Your task to perform on an android device: Go to Yahoo.com Image 0: 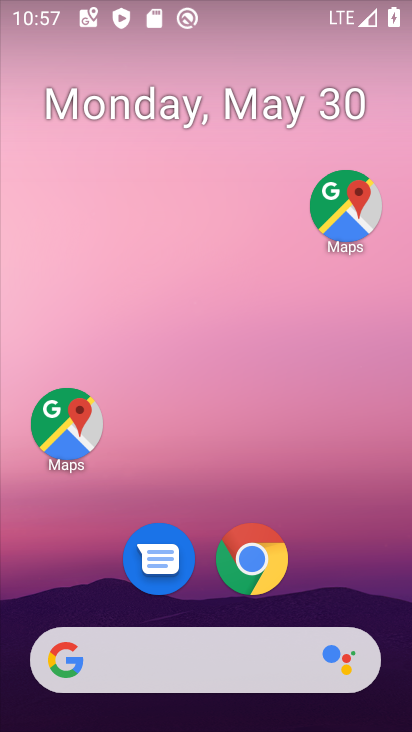
Step 0: click (254, 552)
Your task to perform on an android device: Go to Yahoo.com Image 1: 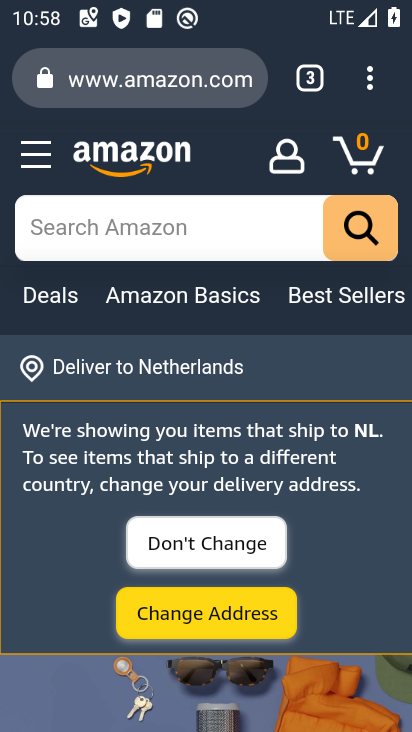
Step 1: click (189, 94)
Your task to perform on an android device: Go to Yahoo.com Image 2: 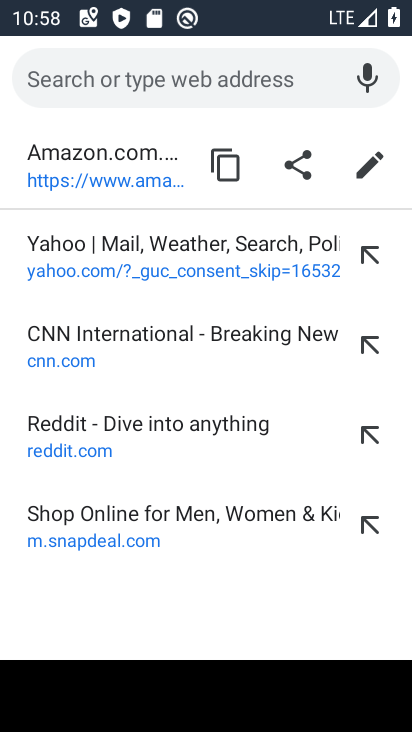
Step 2: type "yahoo.com"
Your task to perform on an android device: Go to Yahoo.com Image 3: 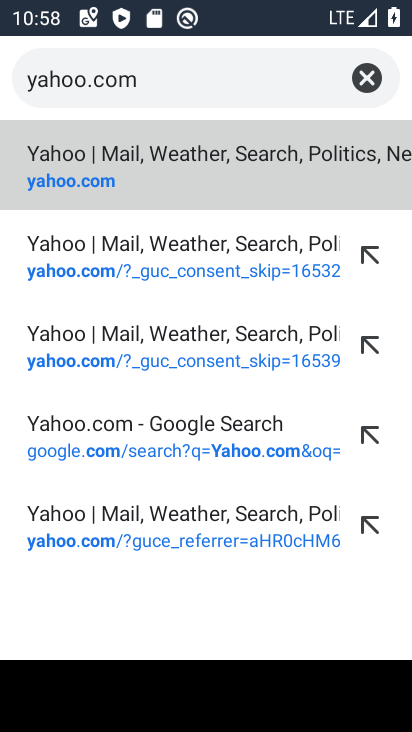
Step 3: click (108, 181)
Your task to perform on an android device: Go to Yahoo.com Image 4: 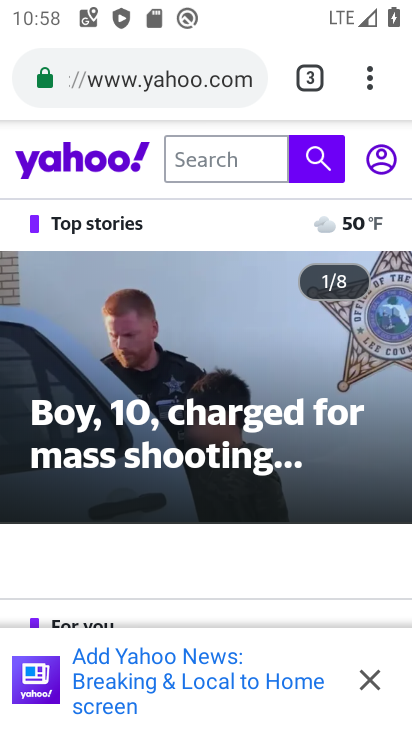
Step 4: task complete